Your task to perform on an android device: Is it going to rain today? Image 0: 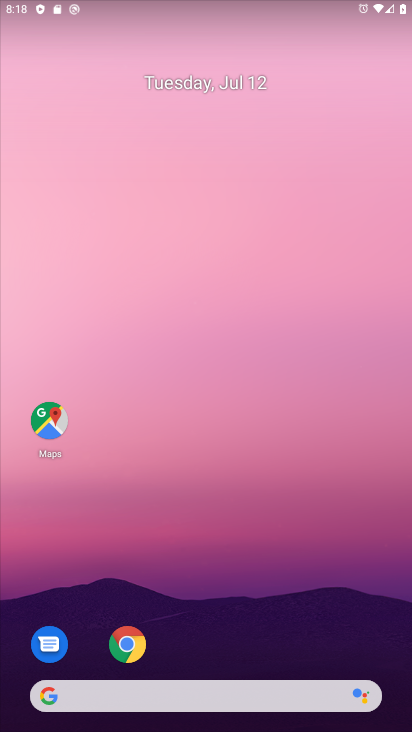
Step 0: click (110, 702)
Your task to perform on an android device: Is it going to rain today? Image 1: 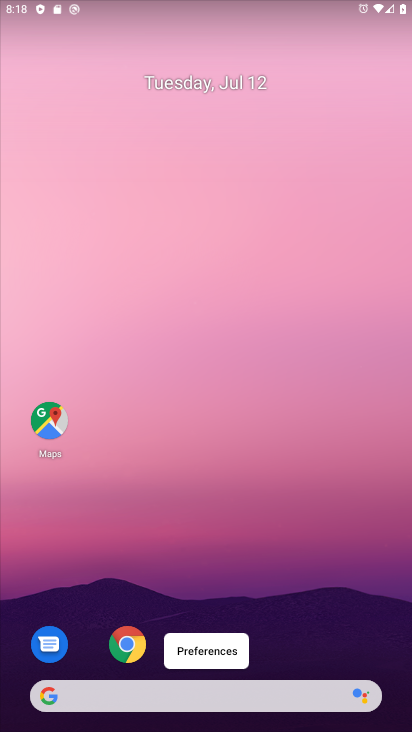
Step 1: click (92, 694)
Your task to perform on an android device: Is it going to rain today? Image 2: 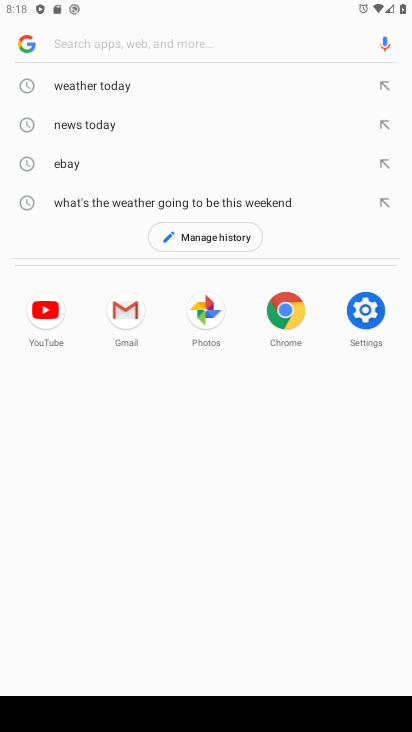
Step 2: type "Is it going to rain today?"
Your task to perform on an android device: Is it going to rain today? Image 3: 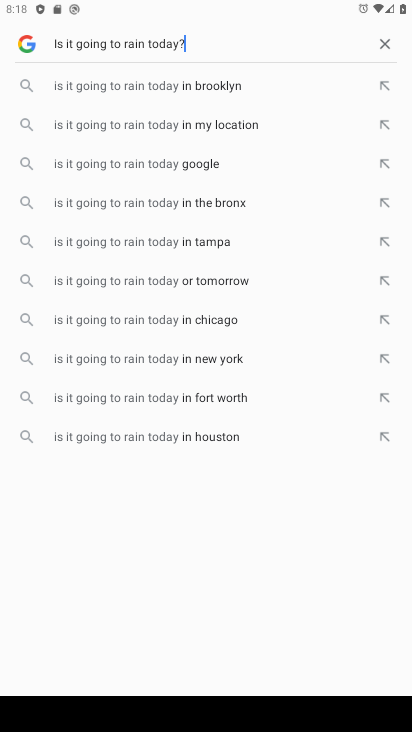
Step 3: type ""
Your task to perform on an android device: Is it going to rain today? Image 4: 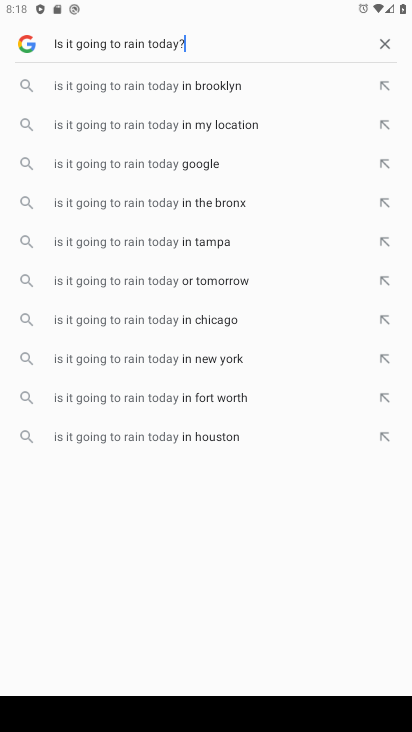
Step 4: type "  "
Your task to perform on an android device: Is it going to rain today? Image 5: 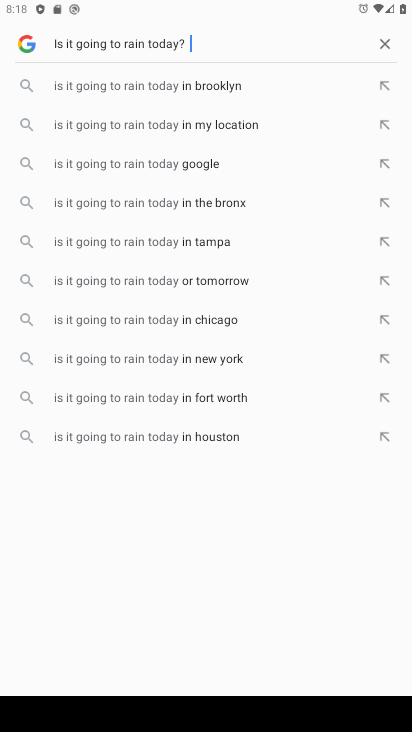
Step 5: task complete